Your task to perform on an android device: Open Android settings Image 0: 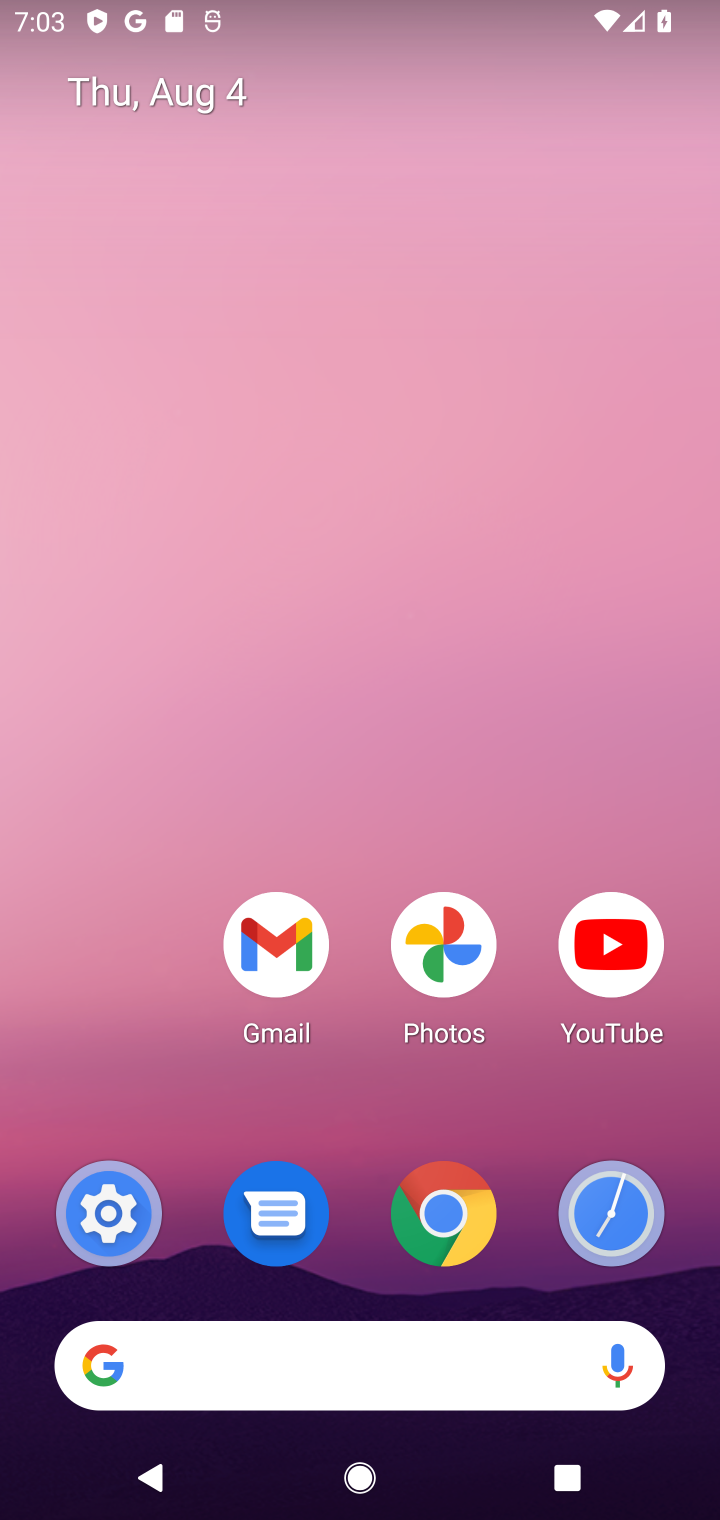
Step 0: click (111, 1241)
Your task to perform on an android device: Open Android settings Image 1: 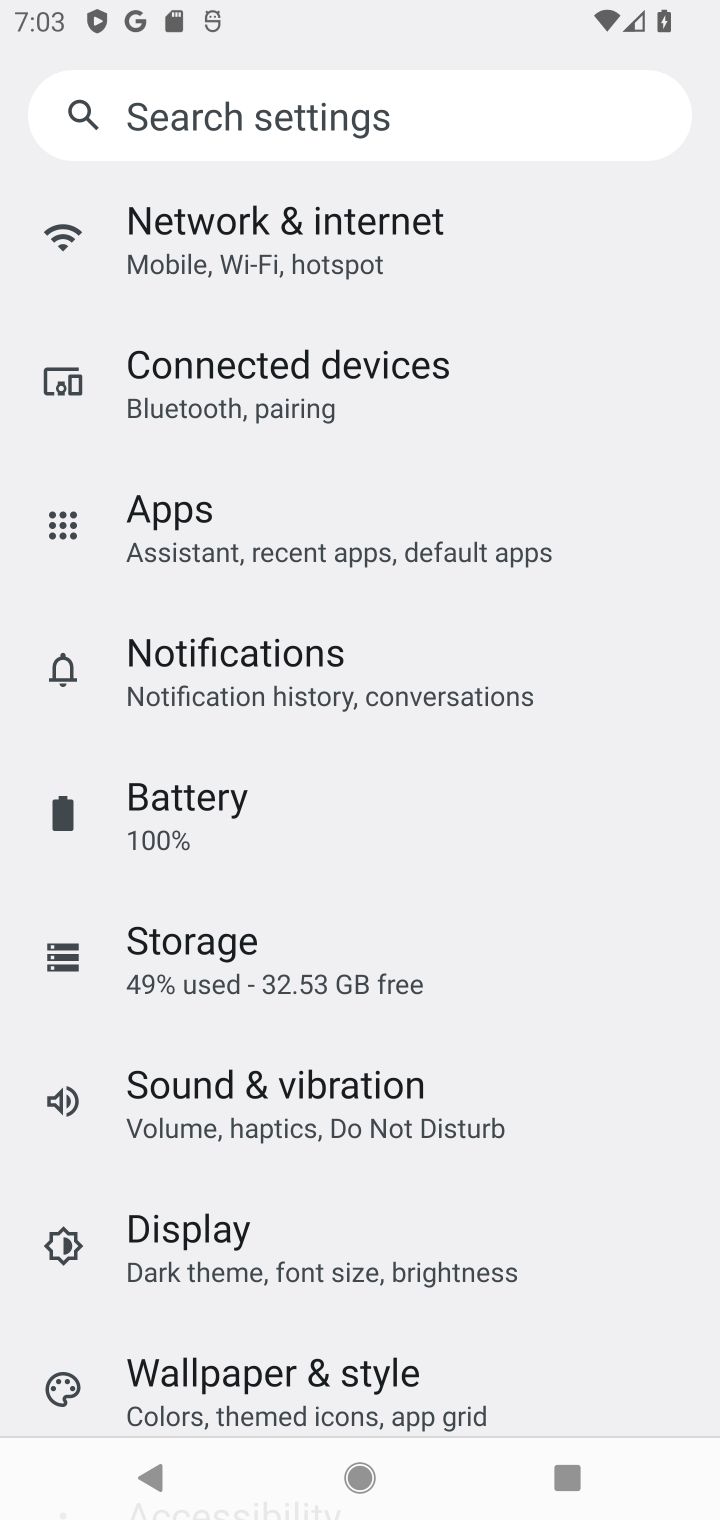
Step 1: drag from (318, 1250) to (361, 11)
Your task to perform on an android device: Open Android settings Image 2: 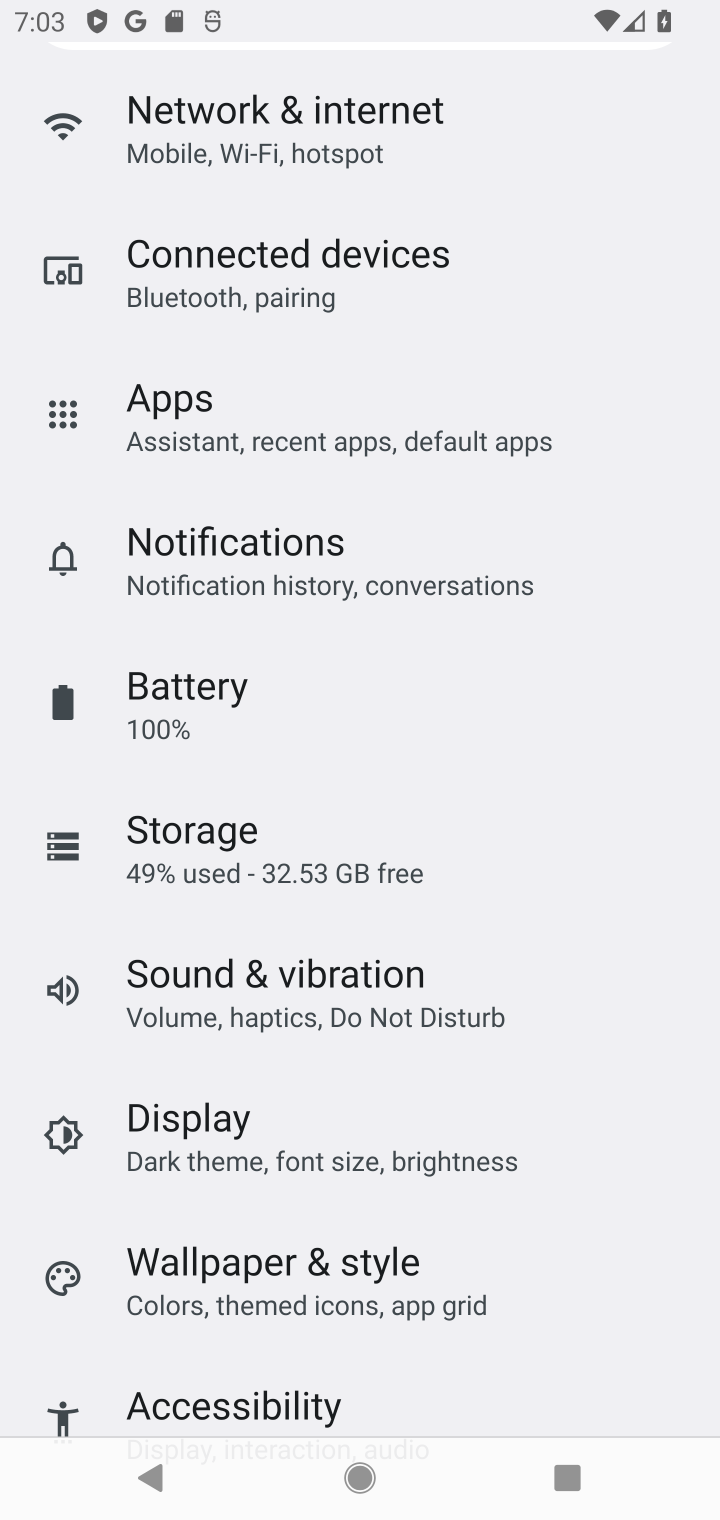
Step 2: drag from (298, 1195) to (424, 0)
Your task to perform on an android device: Open Android settings Image 3: 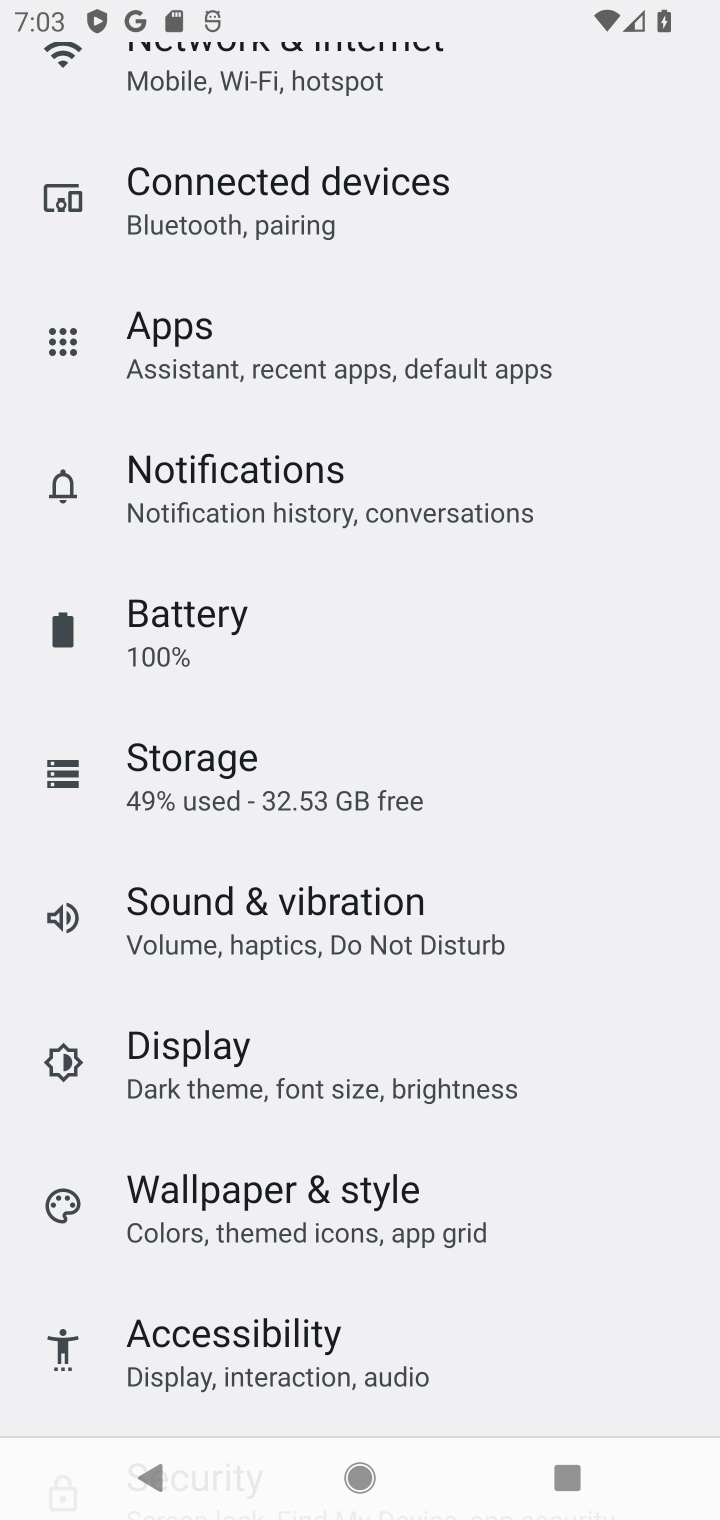
Step 3: drag from (408, 1116) to (314, 208)
Your task to perform on an android device: Open Android settings Image 4: 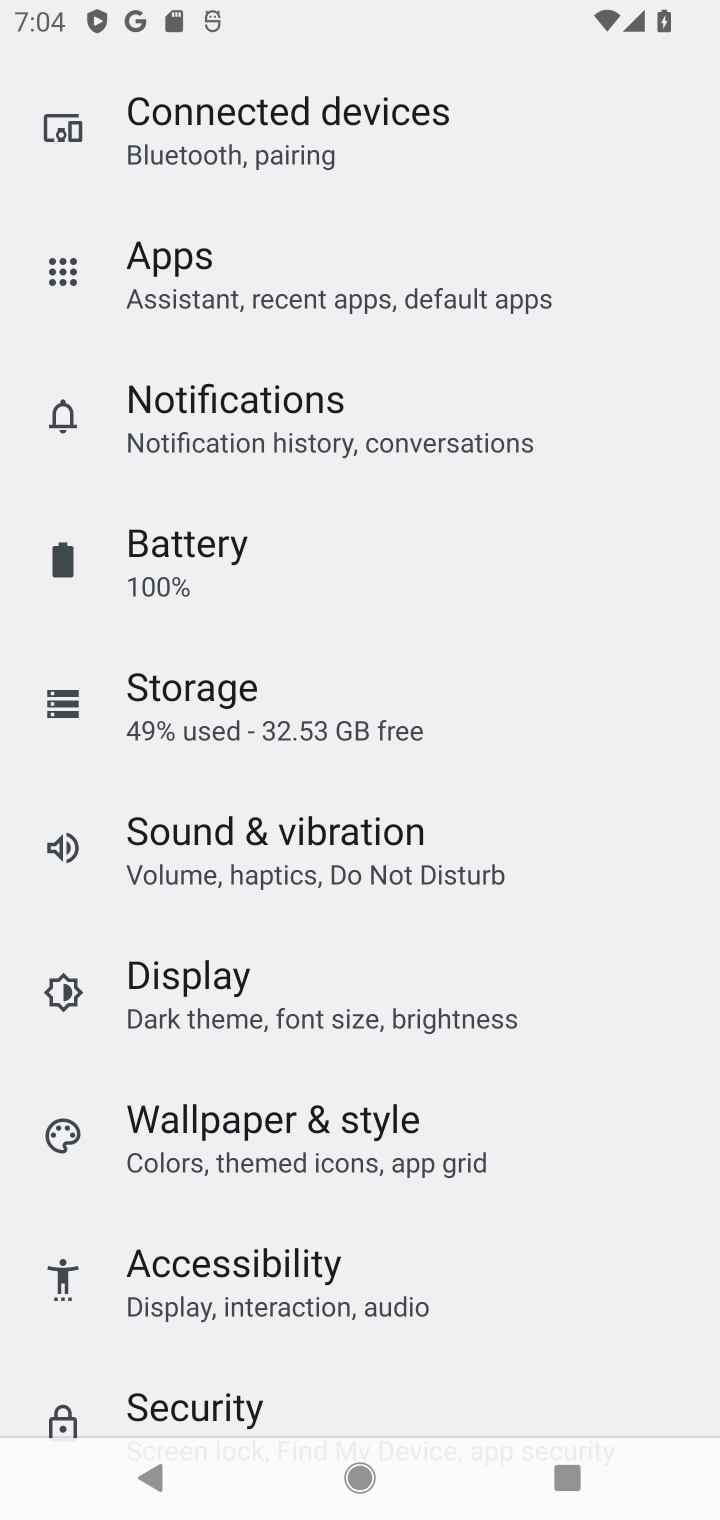
Step 4: drag from (256, 1317) to (256, 602)
Your task to perform on an android device: Open Android settings Image 5: 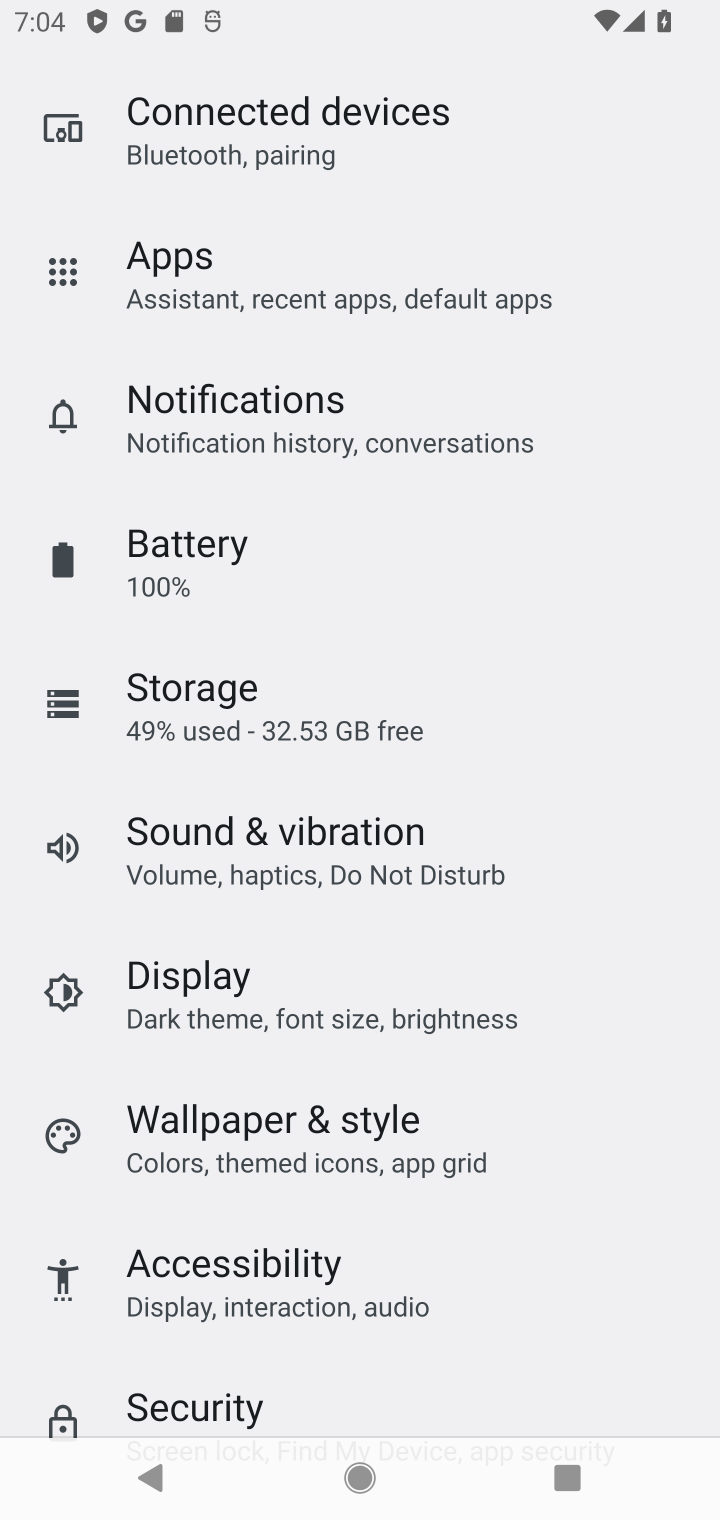
Step 5: drag from (263, 1330) to (272, 23)
Your task to perform on an android device: Open Android settings Image 6: 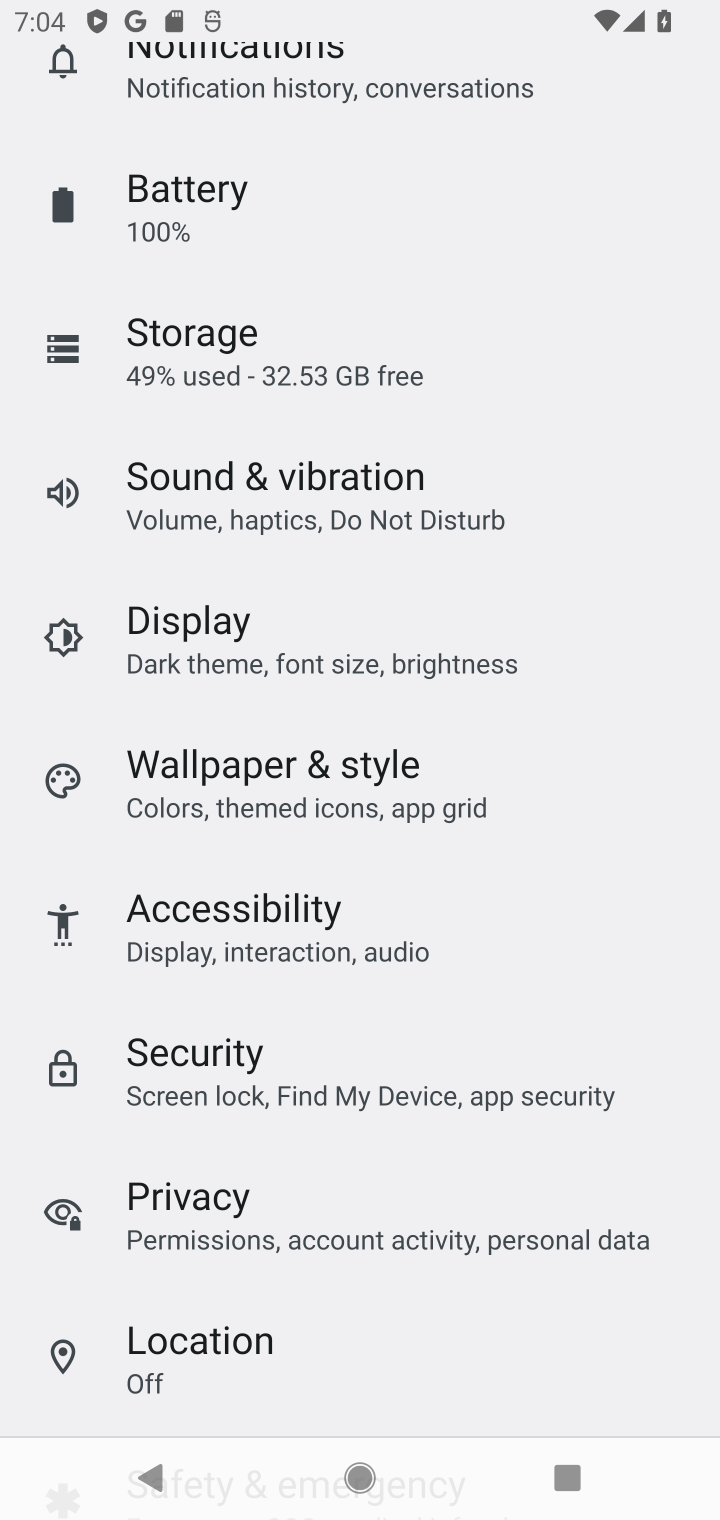
Step 6: drag from (265, 1212) to (212, 12)
Your task to perform on an android device: Open Android settings Image 7: 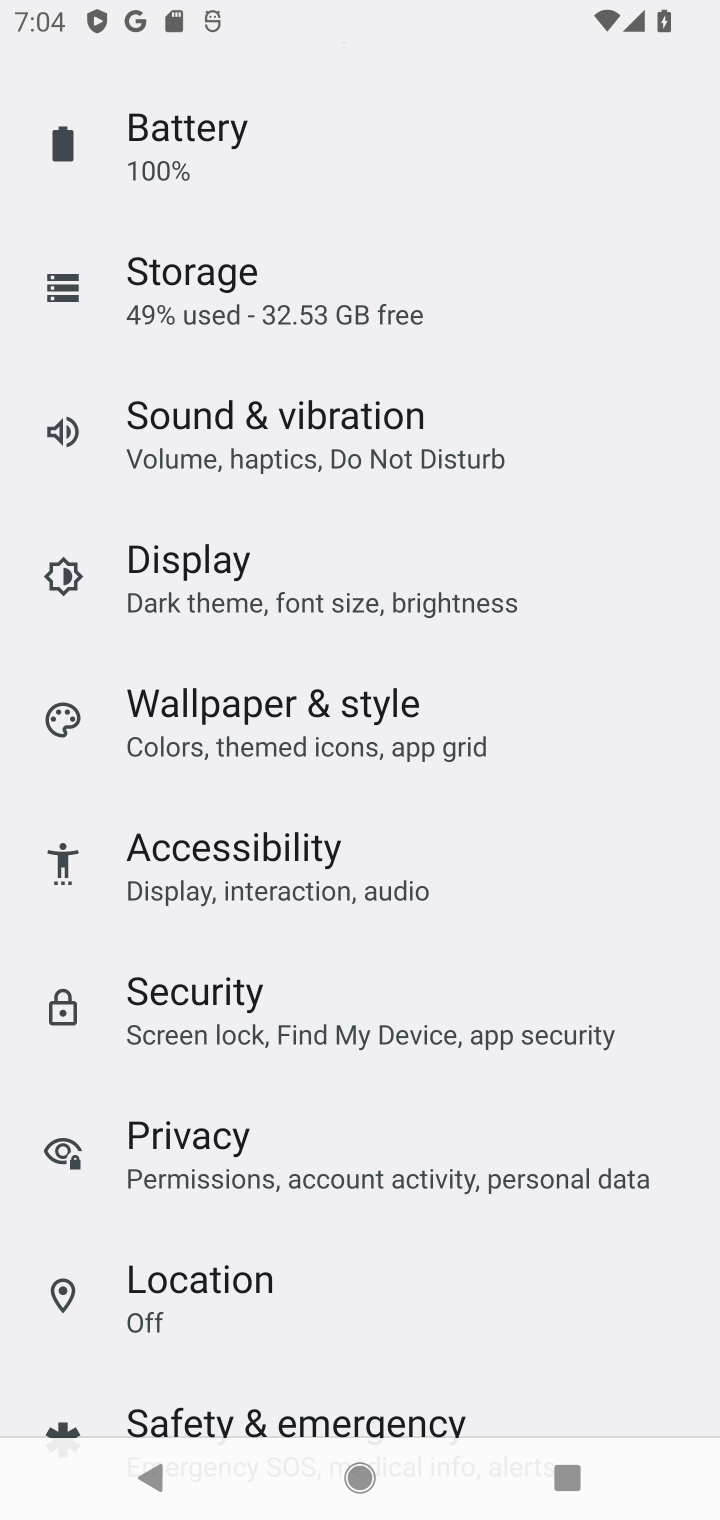
Step 7: drag from (405, 1186) to (491, 251)
Your task to perform on an android device: Open Android settings Image 8: 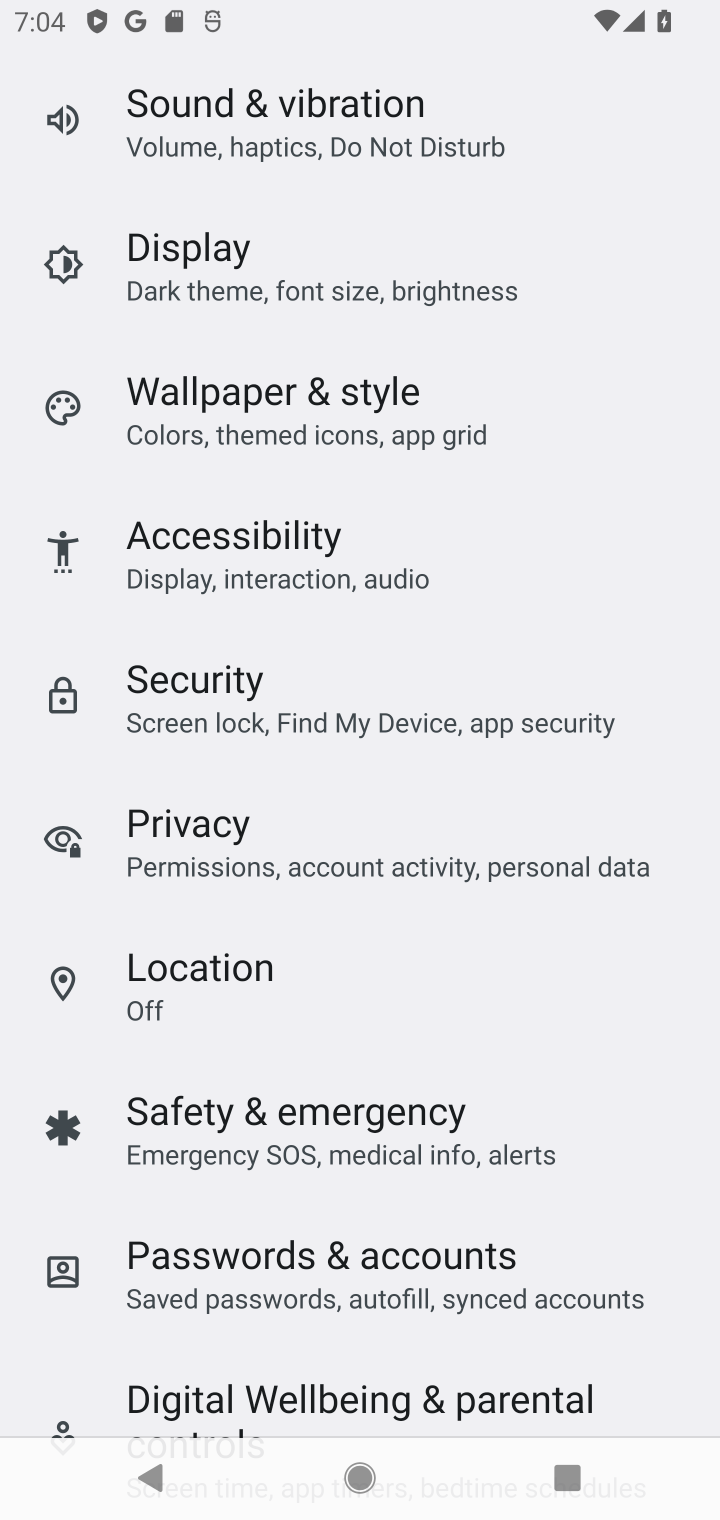
Step 8: drag from (398, 1217) to (399, 519)
Your task to perform on an android device: Open Android settings Image 9: 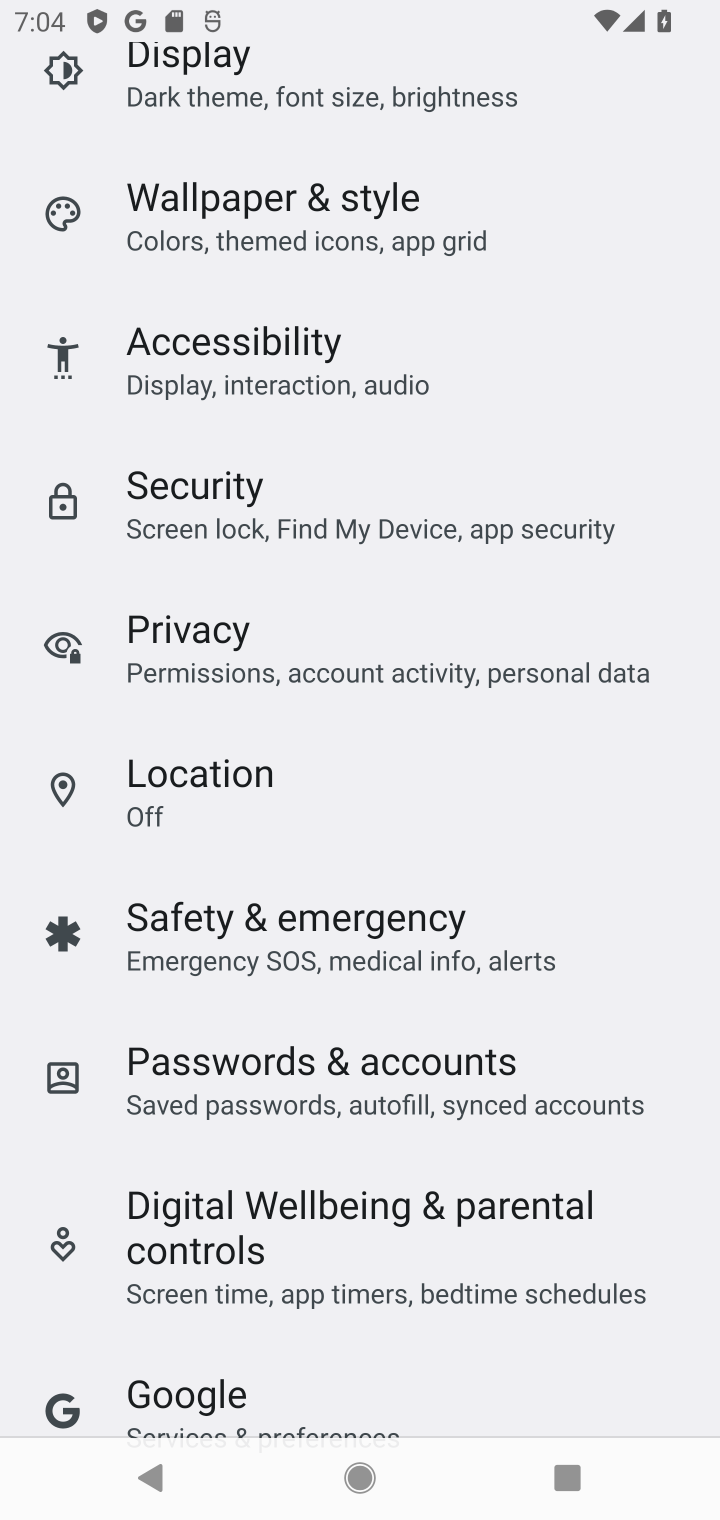
Step 9: drag from (314, 1306) to (313, 210)
Your task to perform on an android device: Open Android settings Image 10: 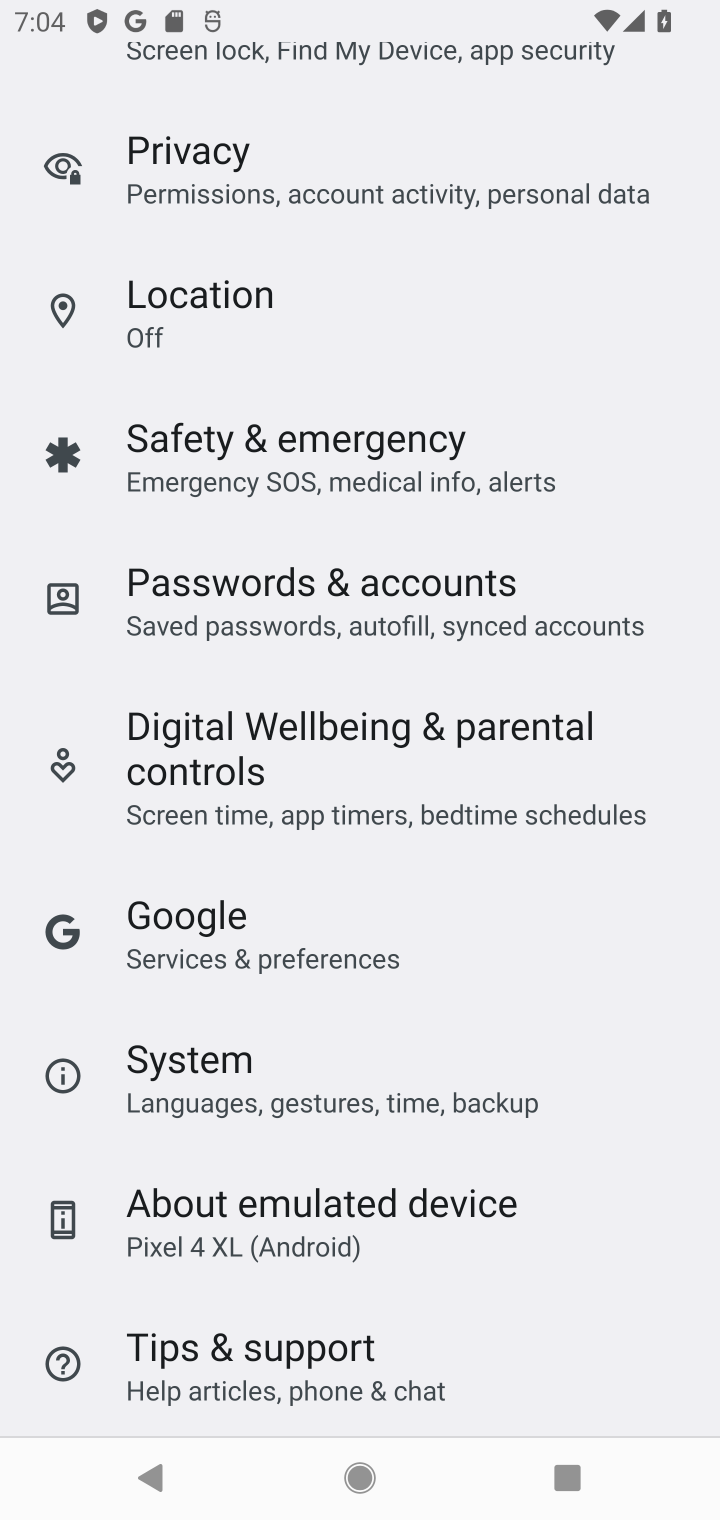
Step 10: click (212, 1104)
Your task to perform on an android device: Open Android settings Image 11: 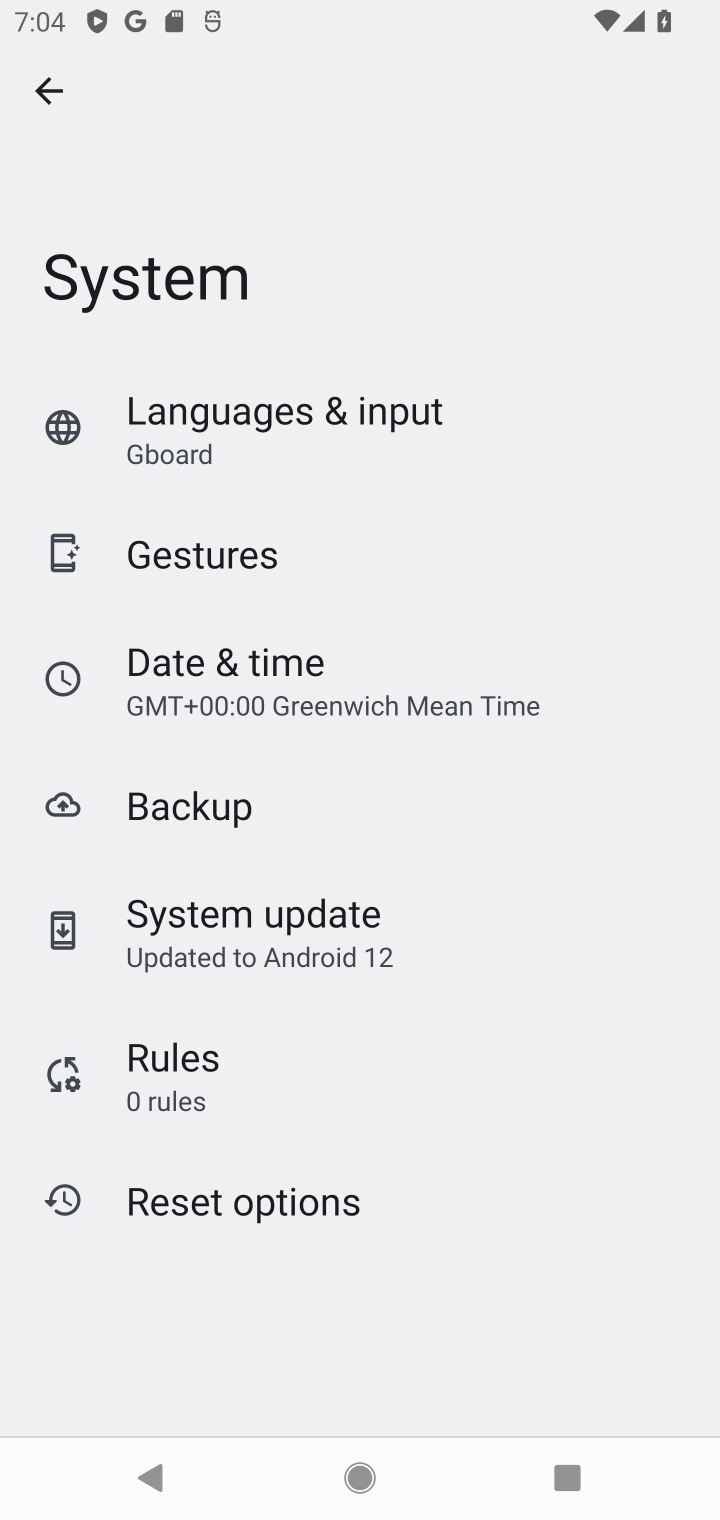
Step 11: task complete